Your task to perform on an android device: change keyboard looks Image 0: 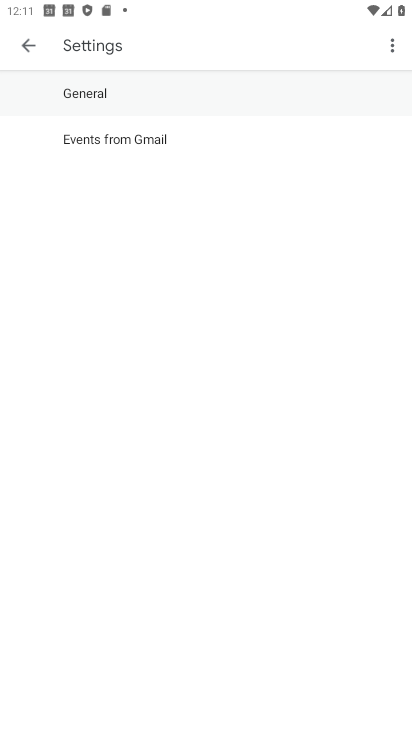
Step 0: press home button
Your task to perform on an android device: change keyboard looks Image 1: 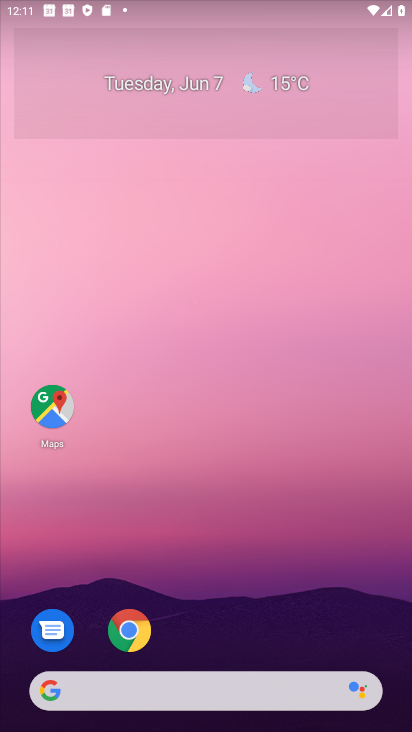
Step 1: drag from (393, 593) to (332, 157)
Your task to perform on an android device: change keyboard looks Image 2: 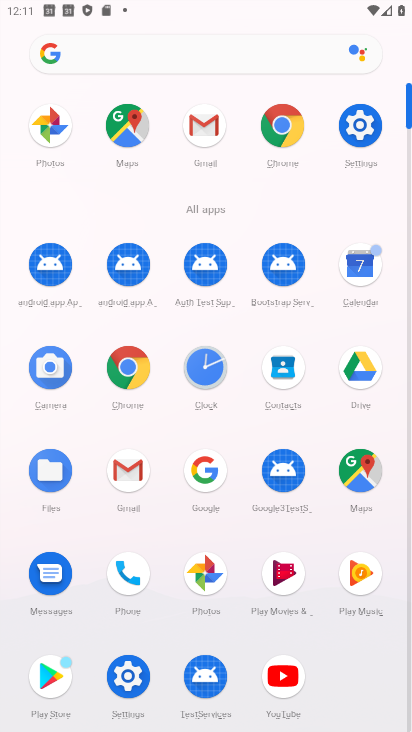
Step 2: click (380, 141)
Your task to perform on an android device: change keyboard looks Image 3: 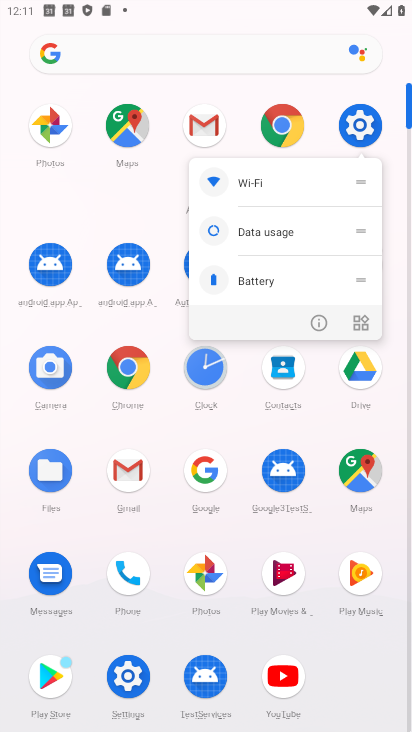
Step 3: click (371, 135)
Your task to perform on an android device: change keyboard looks Image 4: 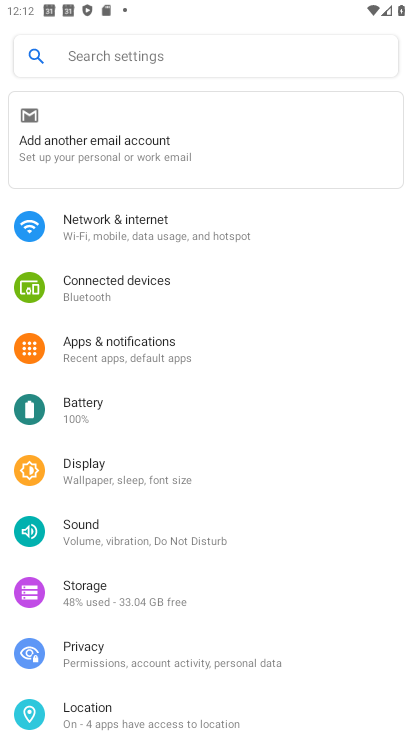
Step 4: click (200, 236)
Your task to perform on an android device: change keyboard looks Image 5: 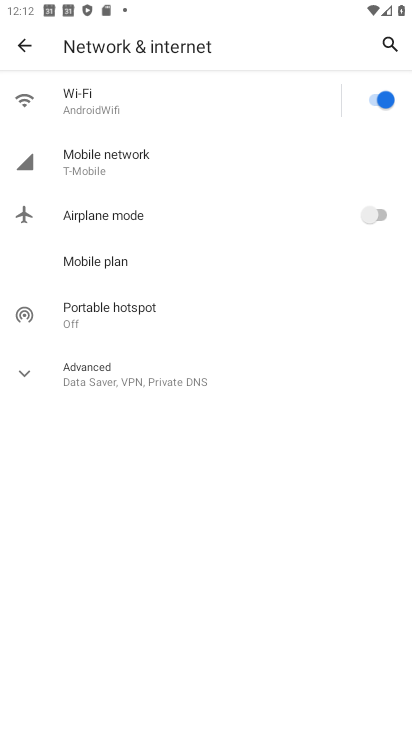
Step 5: click (21, 54)
Your task to perform on an android device: change keyboard looks Image 6: 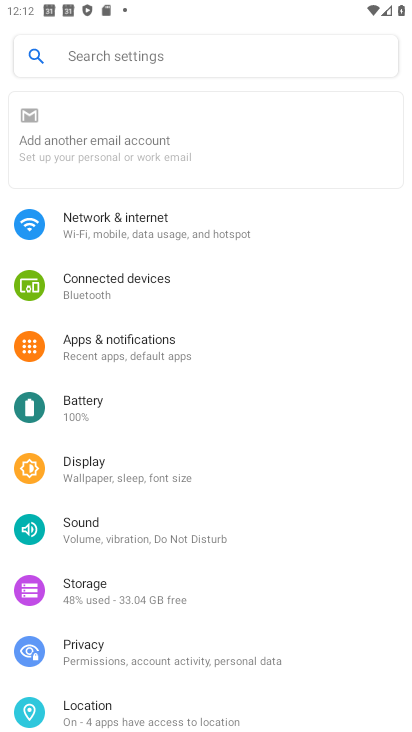
Step 6: drag from (168, 620) to (174, 314)
Your task to perform on an android device: change keyboard looks Image 7: 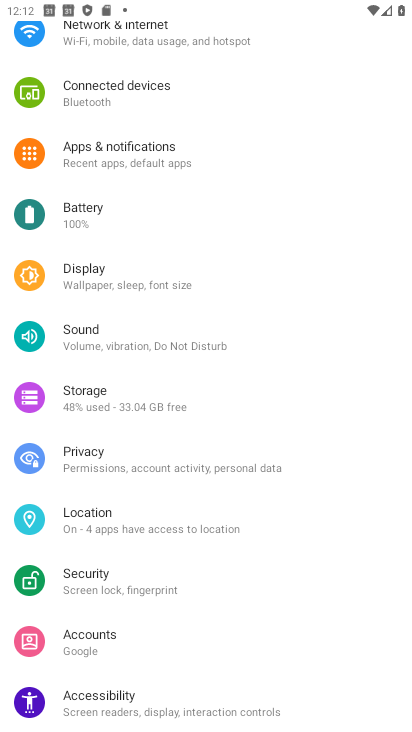
Step 7: drag from (185, 658) to (222, 375)
Your task to perform on an android device: change keyboard looks Image 8: 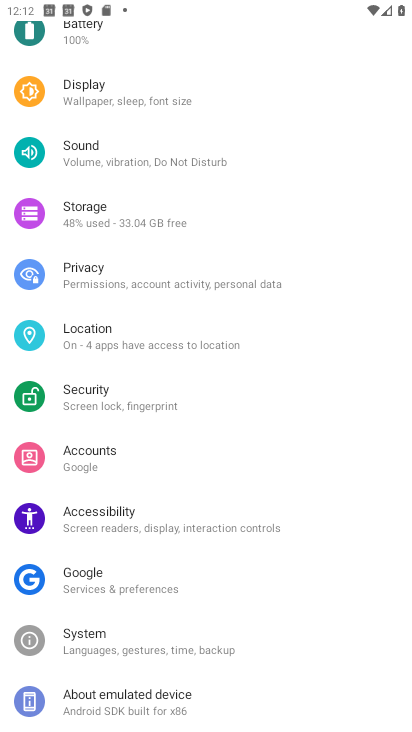
Step 8: click (135, 637)
Your task to perform on an android device: change keyboard looks Image 9: 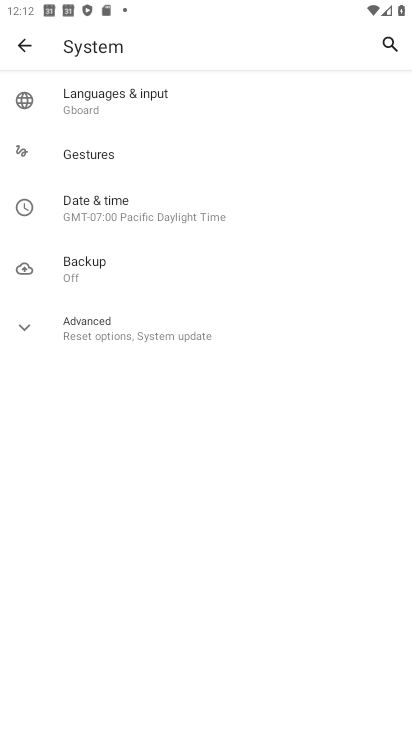
Step 9: click (169, 89)
Your task to perform on an android device: change keyboard looks Image 10: 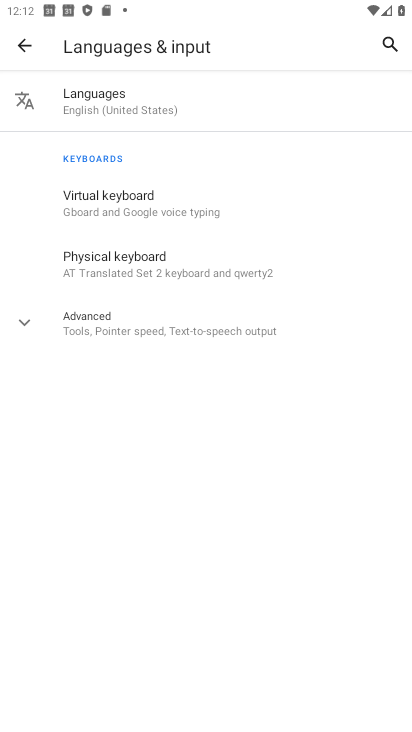
Step 10: click (182, 200)
Your task to perform on an android device: change keyboard looks Image 11: 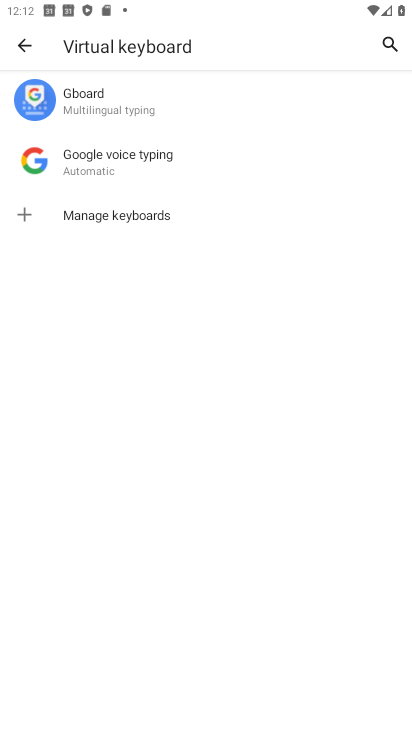
Step 11: click (188, 106)
Your task to perform on an android device: change keyboard looks Image 12: 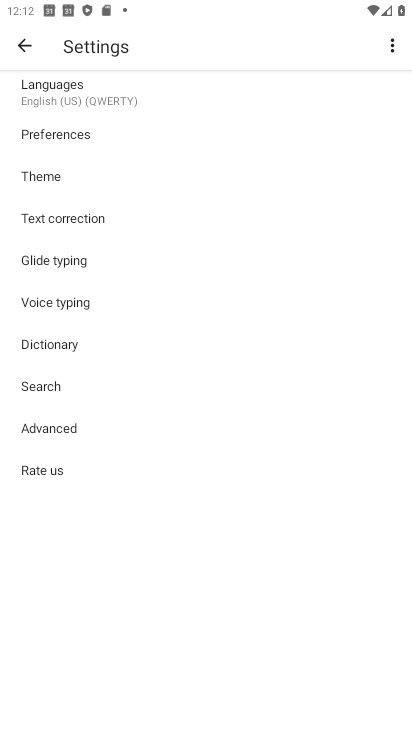
Step 12: click (85, 177)
Your task to perform on an android device: change keyboard looks Image 13: 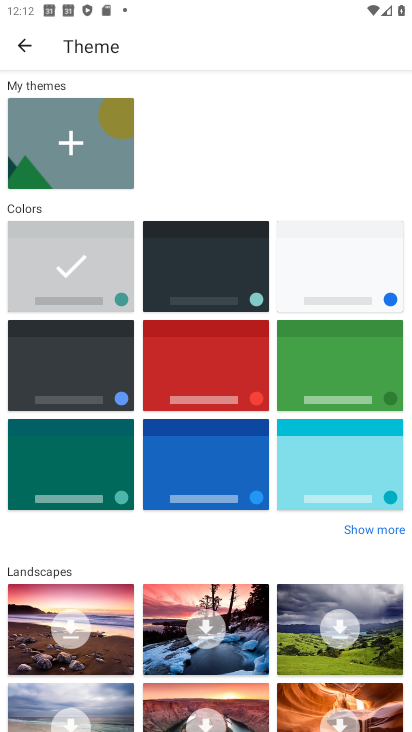
Step 13: click (212, 269)
Your task to perform on an android device: change keyboard looks Image 14: 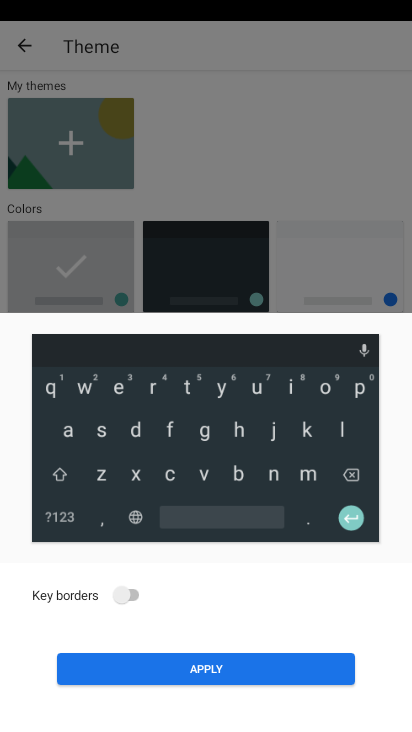
Step 14: click (199, 674)
Your task to perform on an android device: change keyboard looks Image 15: 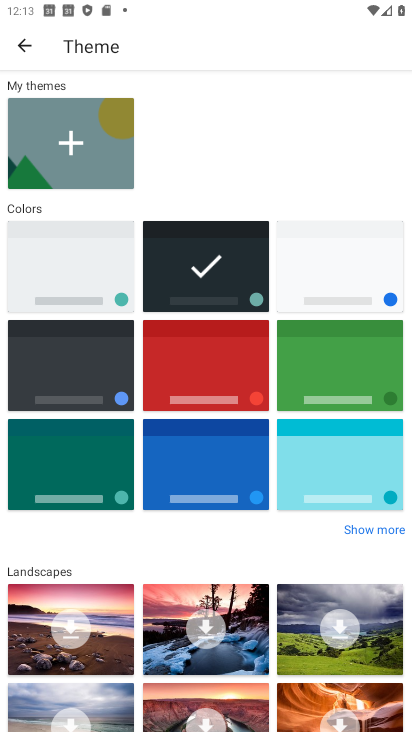
Step 15: task complete